Your task to perform on an android device: What's on my calendar today? Image 0: 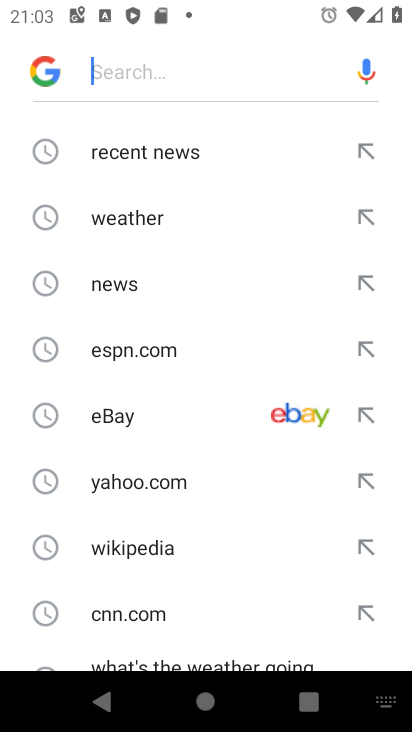
Step 0: press home button
Your task to perform on an android device: What's on my calendar today? Image 1: 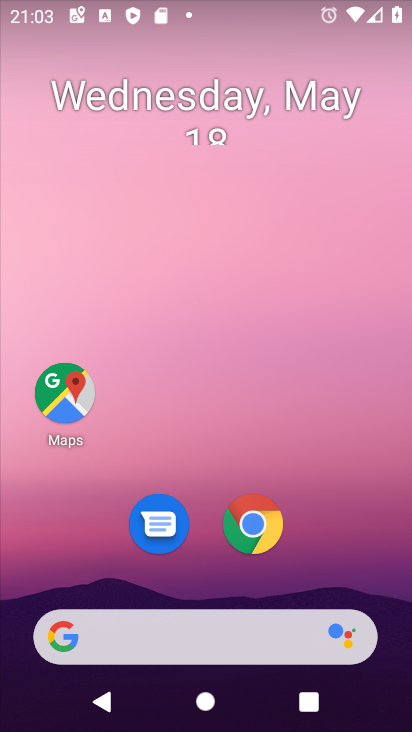
Step 1: drag from (241, 446) to (179, 58)
Your task to perform on an android device: What's on my calendar today? Image 2: 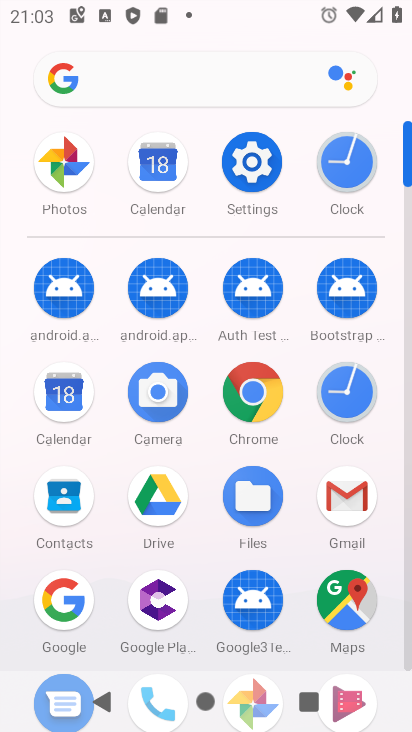
Step 2: click (161, 153)
Your task to perform on an android device: What's on my calendar today? Image 3: 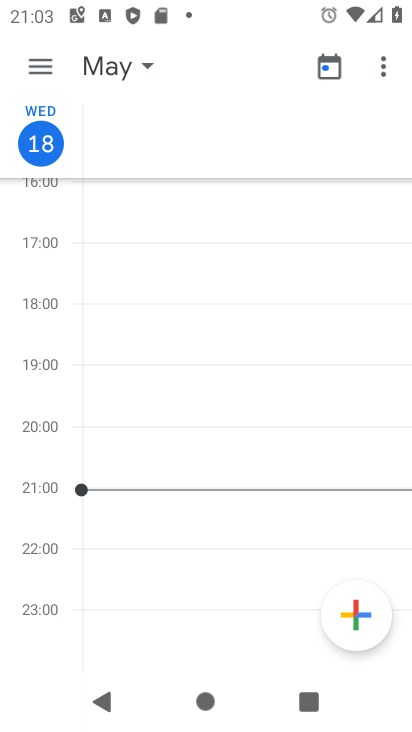
Step 3: task complete